Your task to perform on an android device: turn on priority inbox in the gmail app Image 0: 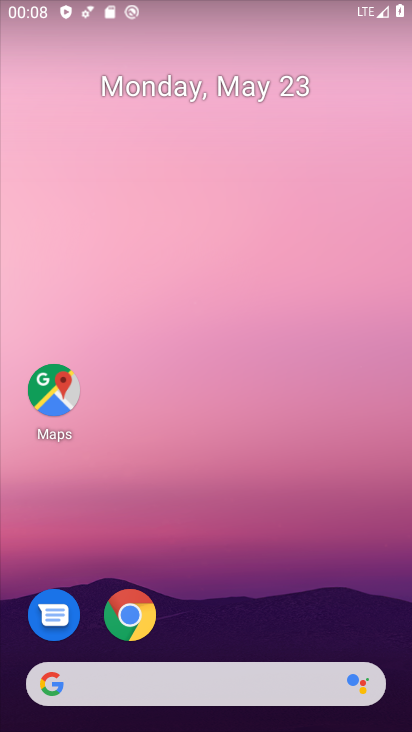
Step 0: drag from (240, 478) to (286, 1)
Your task to perform on an android device: turn on priority inbox in the gmail app Image 1: 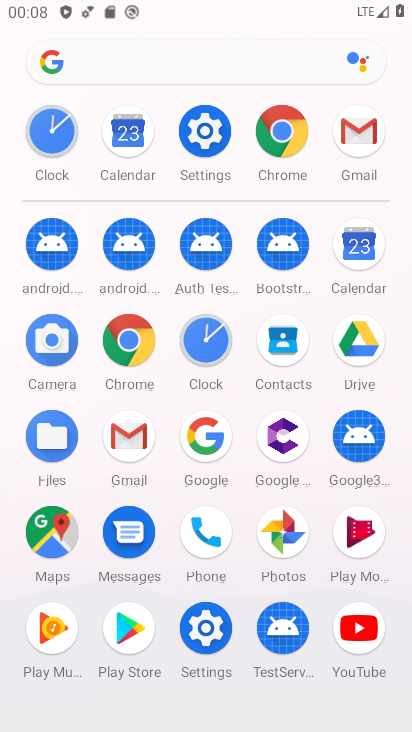
Step 1: click (360, 145)
Your task to perform on an android device: turn on priority inbox in the gmail app Image 2: 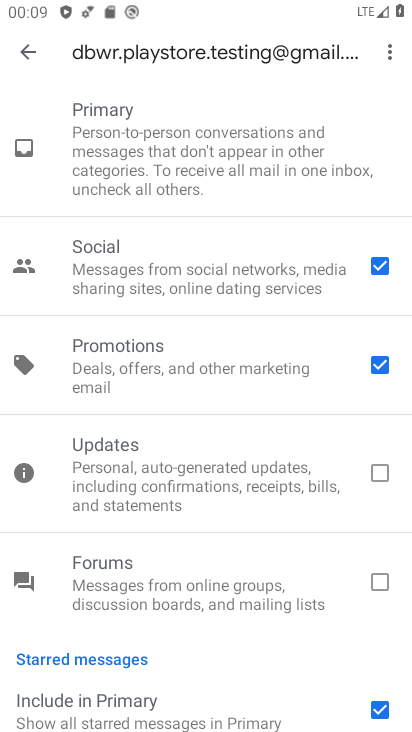
Step 2: click (33, 39)
Your task to perform on an android device: turn on priority inbox in the gmail app Image 3: 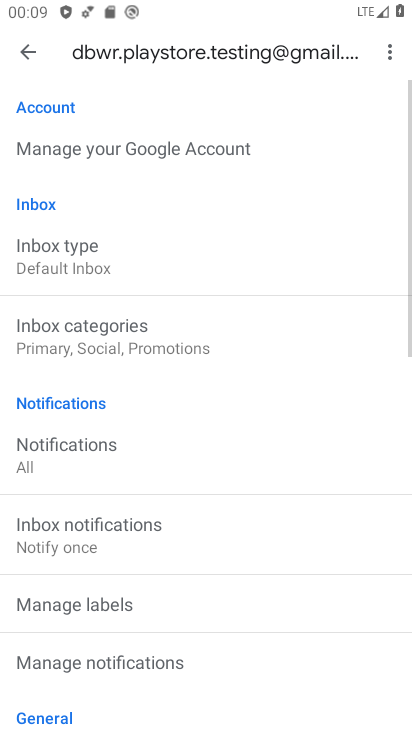
Step 3: click (126, 251)
Your task to perform on an android device: turn on priority inbox in the gmail app Image 4: 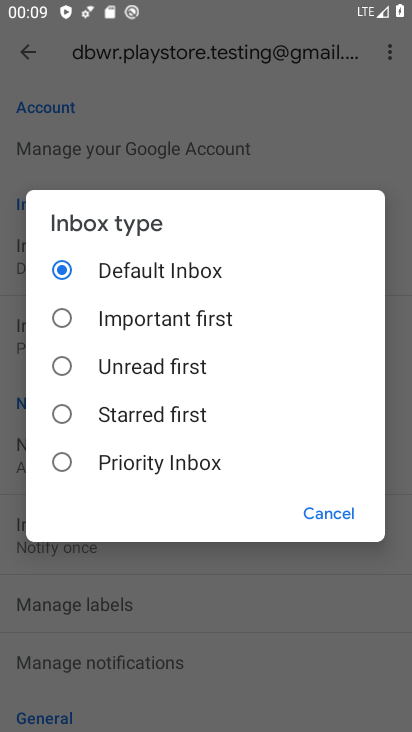
Step 4: click (60, 463)
Your task to perform on an android device: turn on priority inbox in the gmail app Image 5: 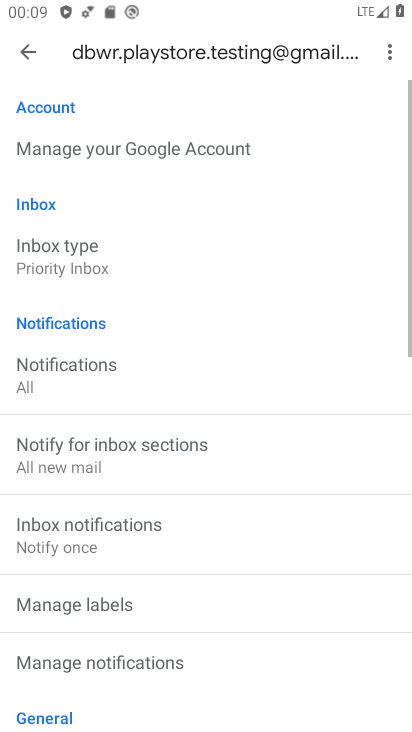
Step 5: task complete